Your task to perform on an android device: open a new tab in the chrome app Image 0: 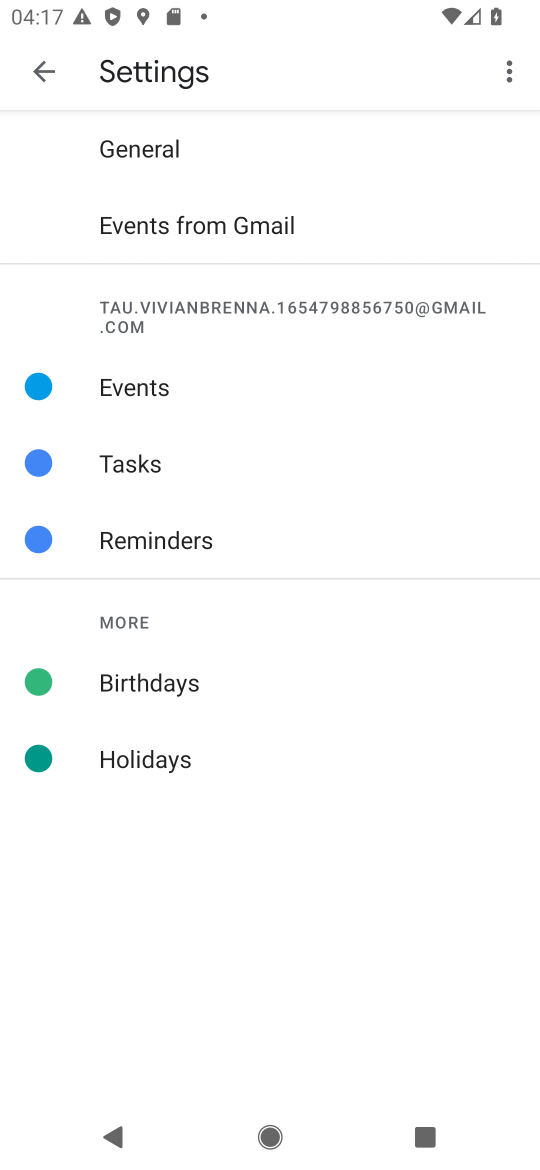
Step 0: press home button
Your task to perform on an android device: open a new tab in the chrome app Image 1: 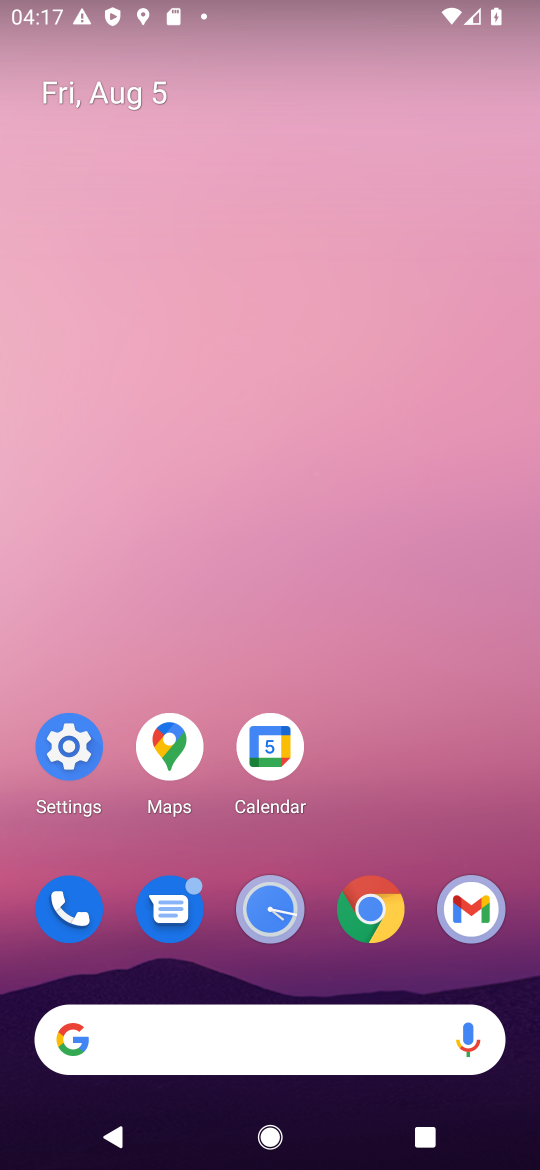
Step 1: click (359, 910)
Your task to perform on an android device: open a new tab in the chrome app Image 2: 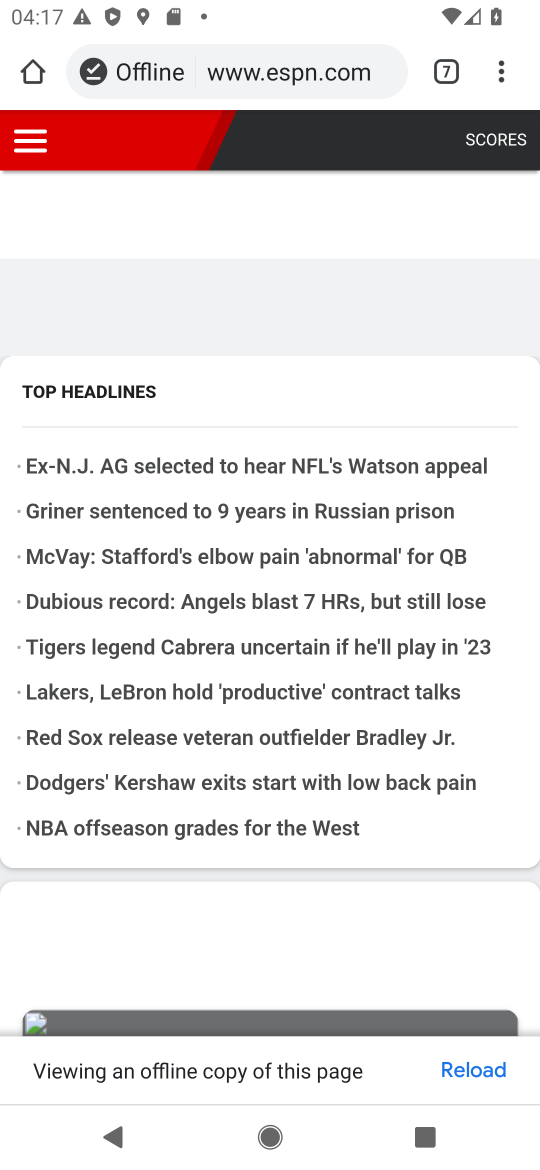
Step 2: click (512, 74)
Your task to perform on an android device: open a new tab in the chrome app Image 3: 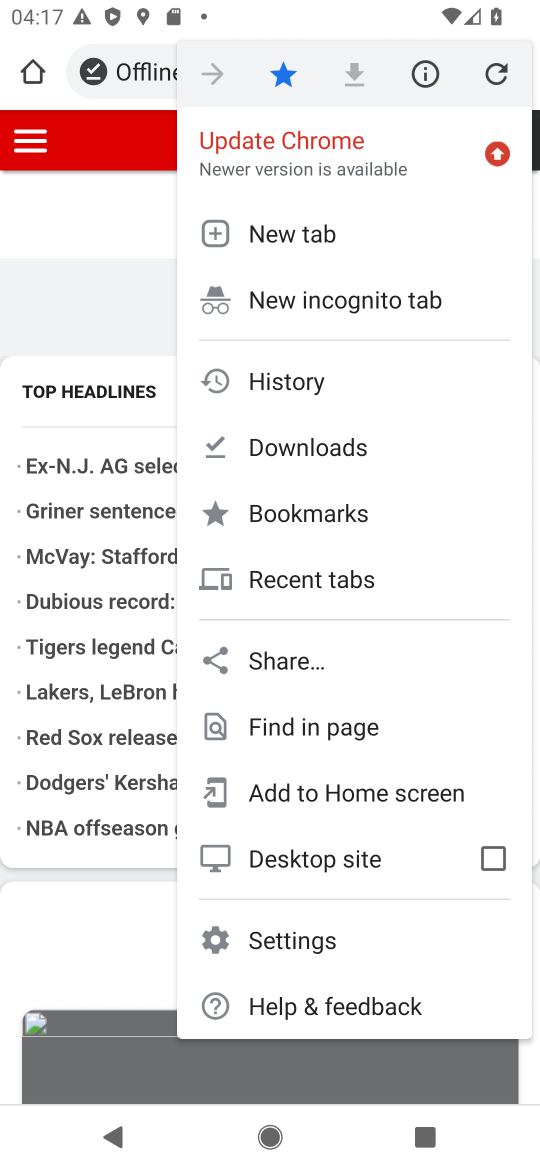
Step 3: click (282, 229)
Your task to perform on an android device: open a new tab in the chrome app Image 4: 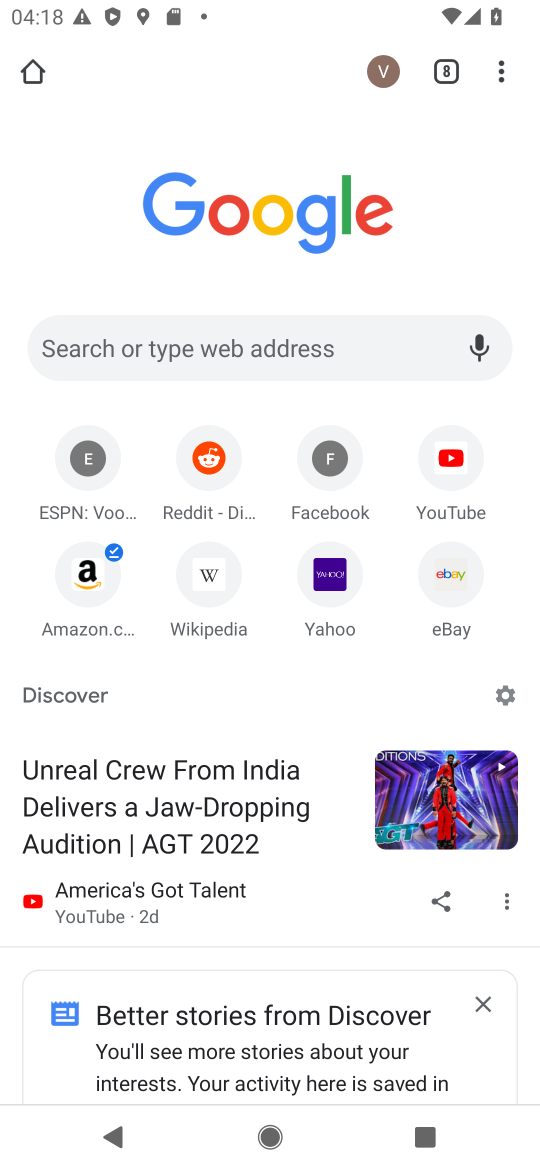
Step 4: task complete